Your task to perform on an android device: Open sound settings Image 0: 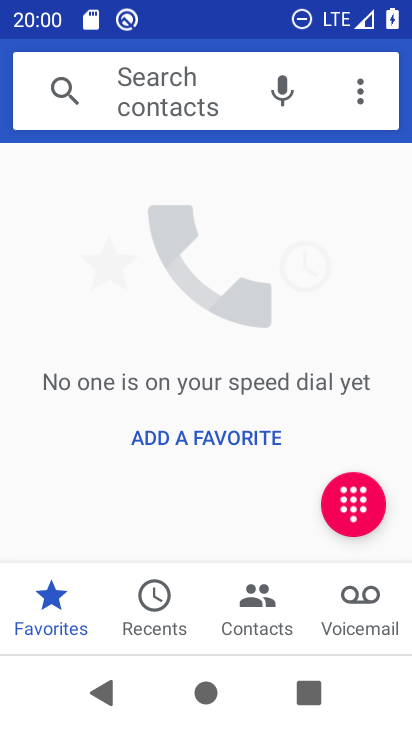
Step 0: press home button
Your task to perform on an android device: Open sound settings Image 1: 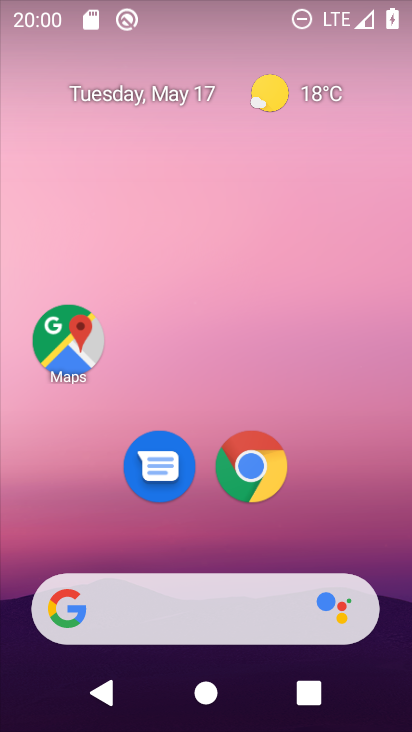
Step 1: drag from (278, 237) to (315, 157)
Your task to perform on an android device: Open sound settings Image 2: 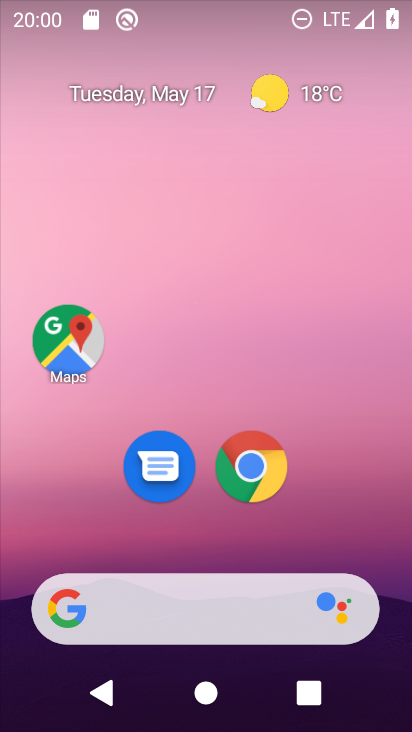
Step 2: drag from (223, 602) to (383, 149)
Your task to perform on an android device: Open sound settings Image 3: 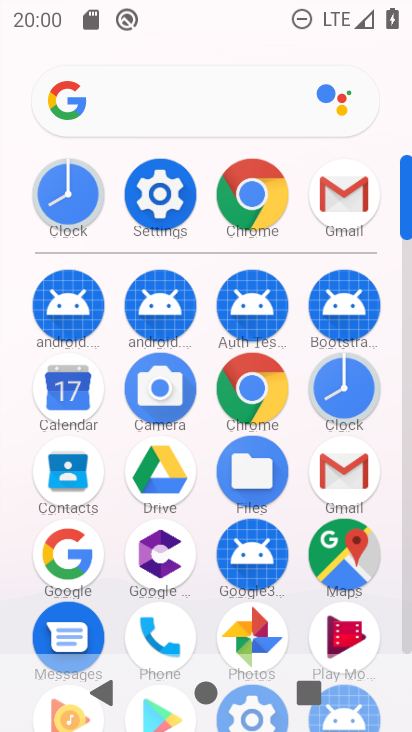
Step 3: click (162, 264)
Your task to perform on an android device: Open sound settings Image 4: 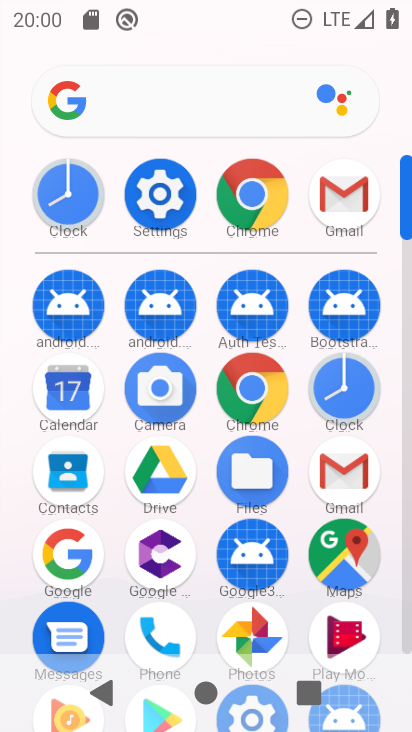
Step 4: click (157, 221)
Your task to perform on an android device: Open sound settings Image 5: 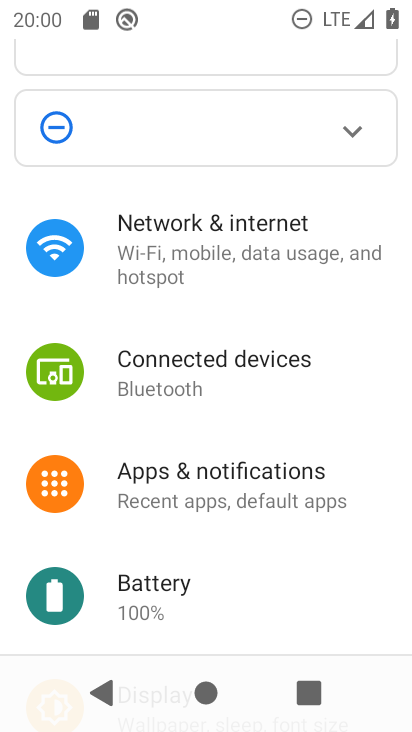
Step 5: drag from (229, 584) to (341, 211)
Your task to perform on an android device: Open sound settings Image 6: 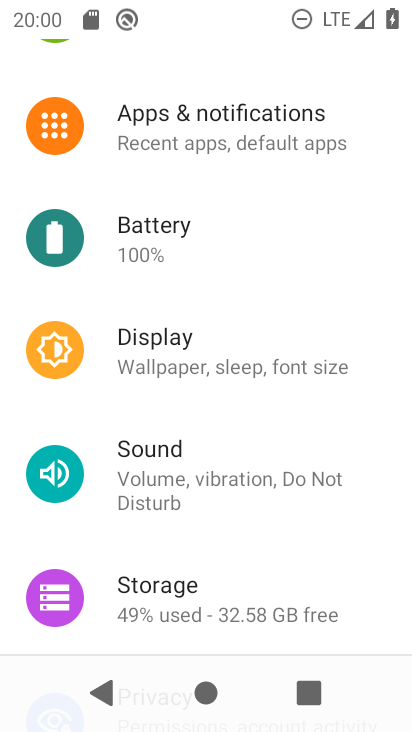
Step 6: click (173, 473)
Your task to perform on an android device: Open sound settings Image 7: 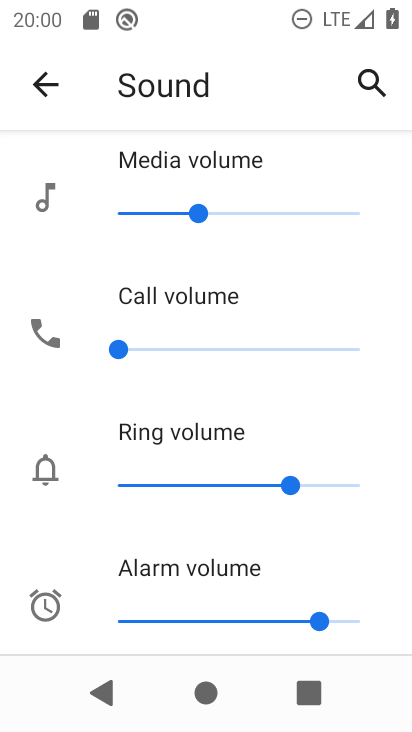
Step 7: task complete